Your task to perform on an android device: Open CNN.com Image 0: 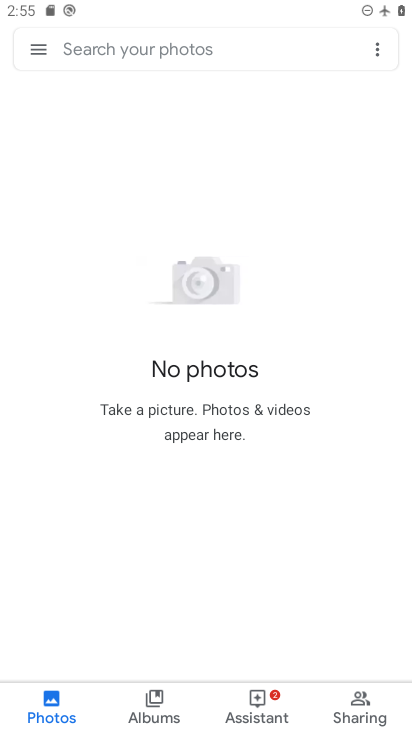
Step 0: press home button
Your task to perform on an android device: Open CNN.com Image 1: 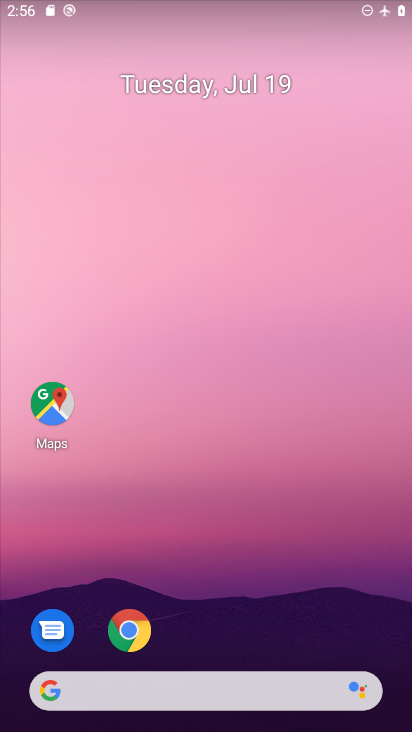
Step 1: click (128, 628)
Your task to perform on an android device: Open CNN.com Image 2: 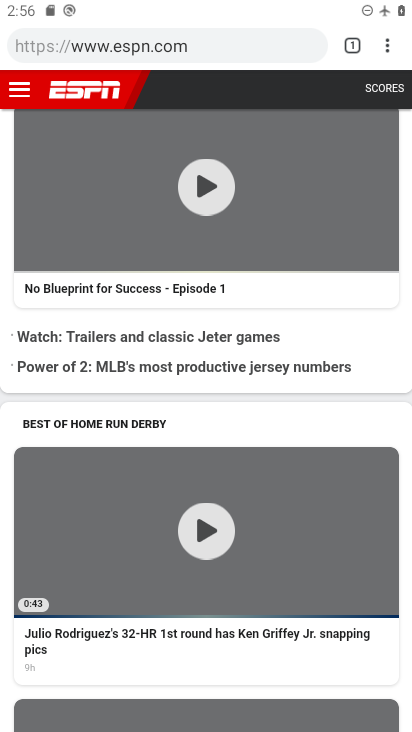
Step 2: click (223, 43)
Your task to perform on an android device: Open CNN.com Image 3: 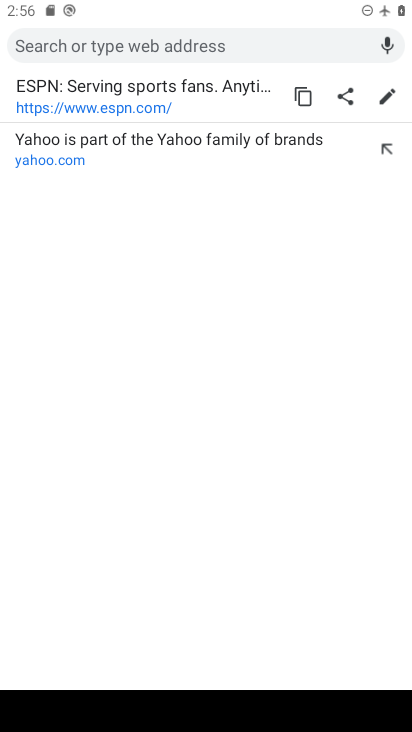
Step 3: type "CNN.com"
Your task to perform on an android device: Open CNN.com Image 4: 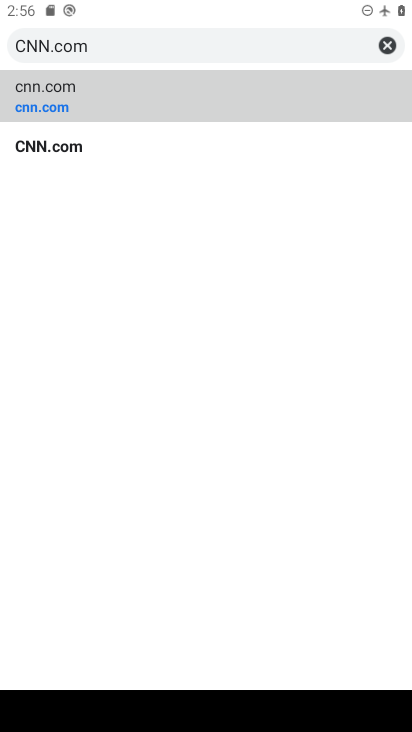
Step 4: click (98, 86)
Your task to perform on an android device: Open CNN.com Image 5: 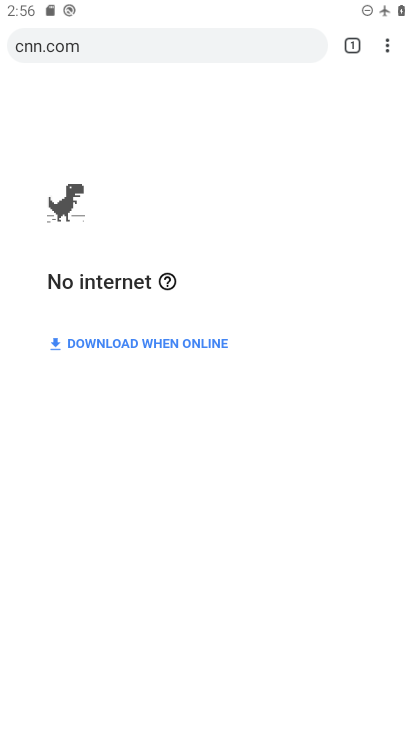
Step 5: task complete